Your task to perform on an android device: turn on location history Image 0: 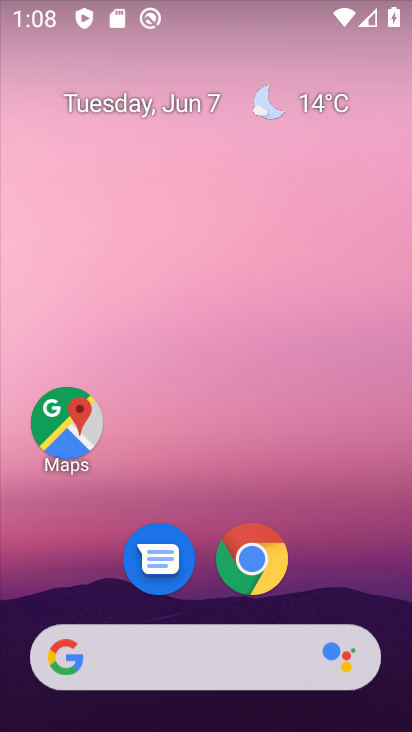
Step 0: click (75, 408)
Your task to perform on an android device: turn on location history Image 1: 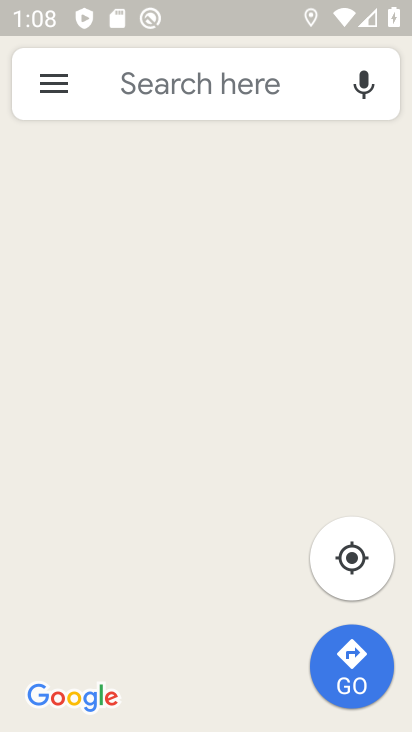
Step 1: click (56, 84)
Your task to perform on an android device: turn on location history Image 2: 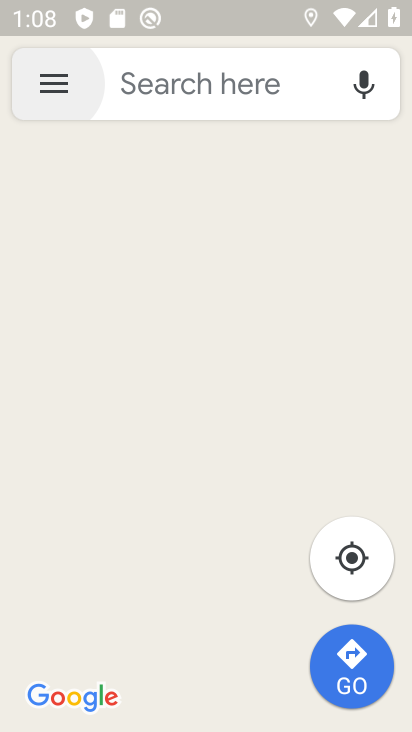
Step 2: click (65, 92)
Your task to perform on an android device: turn on location history Image 3: 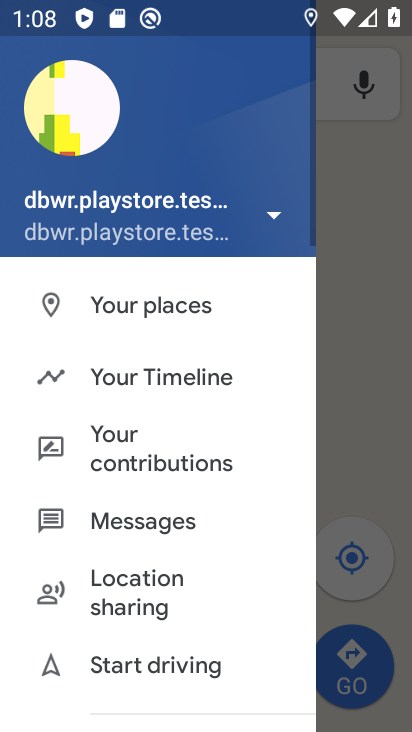
Step 3: click (182, 372)
Your task to perform on an android device: turn on location history Image 4: 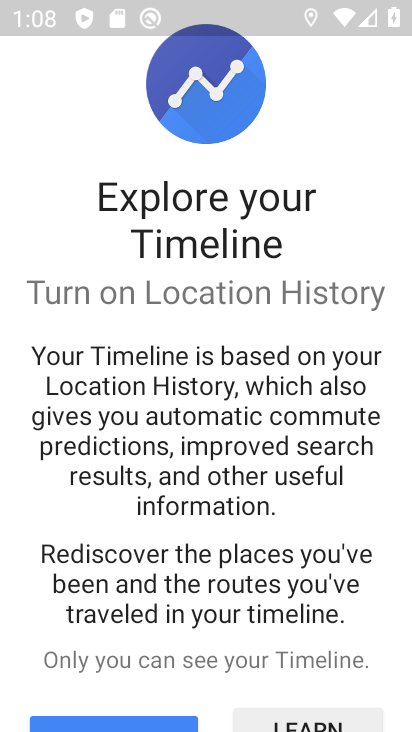
Step 4: drag from (241, 604) to (191, 290)
Your task to perform on an android device: turn on location history Image 5: 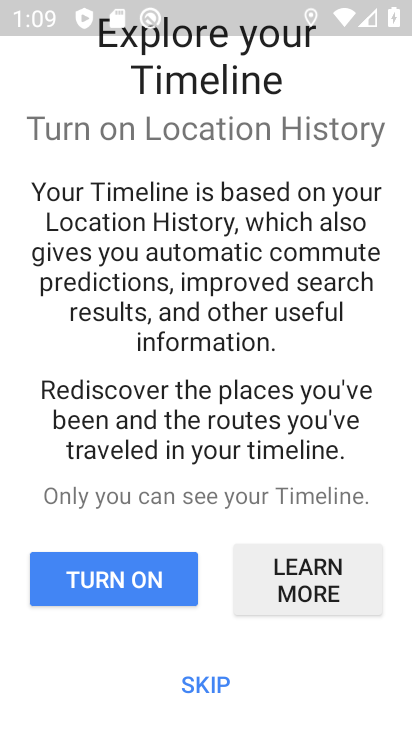
Step 5: click (144, 582)
Your task to perform on an android device: turn on location history Image 6: 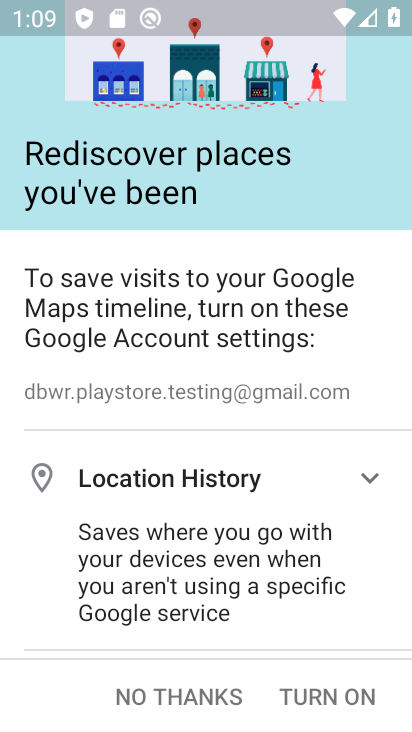
Step 6: click (347, 688)
Your task to perform on an android device: turn on location history Image 7: 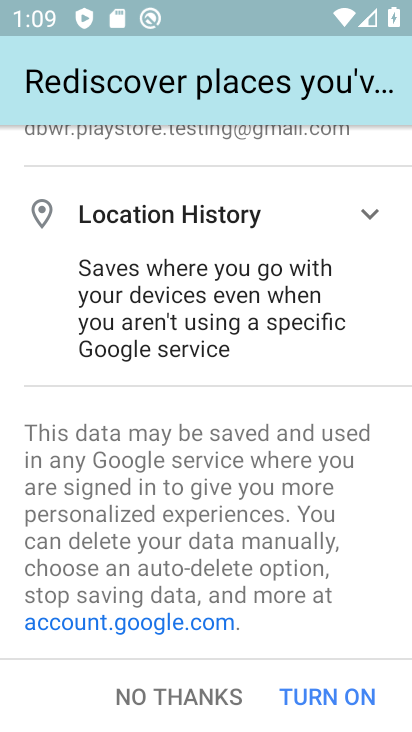
Step 7: click (347, 688)
Your task to perform on an android device: turn on location history Image 8: 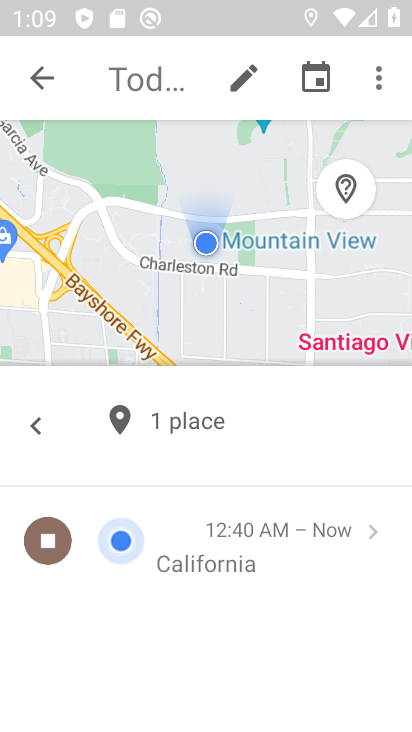
Step 8: task complete